Your task to perform on an android device: search for starred emails in the gmail app Image 0: 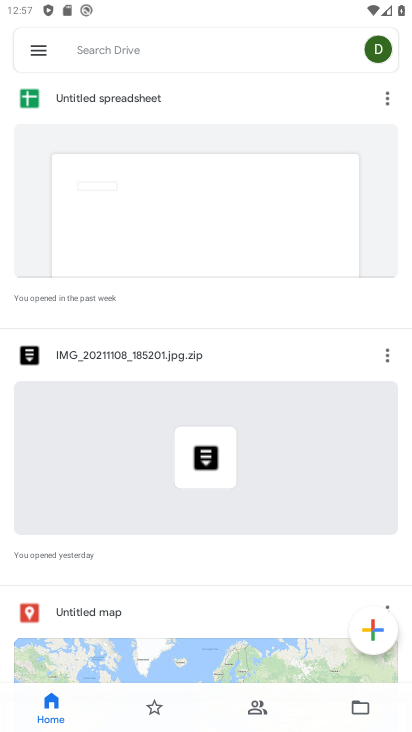
Step 0: press home button
Your task to perform on an android device: search for starred emails in the gmail app Image 1: 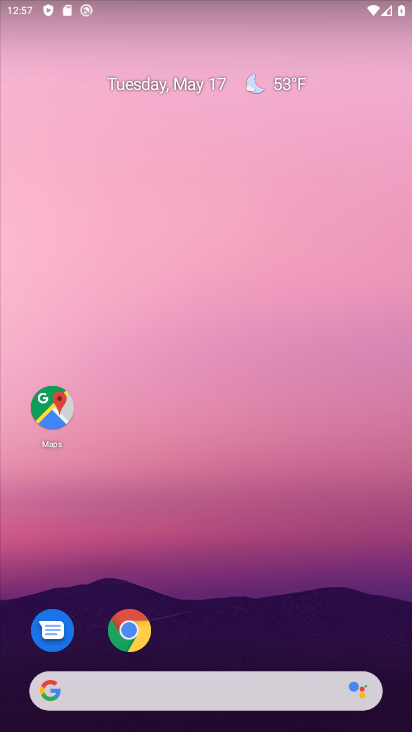
Step 1: drag from (250, 635) to (336, 82)
Your task to perform on an android device: search for starred emails in the gmail app Image 2: 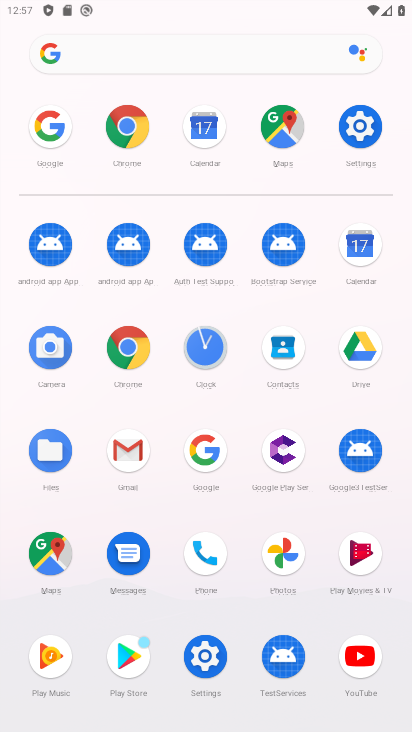
Step 2: click (130, 465)
Your task to perform on an android device: search for starred emails in the gmail app Image 3: 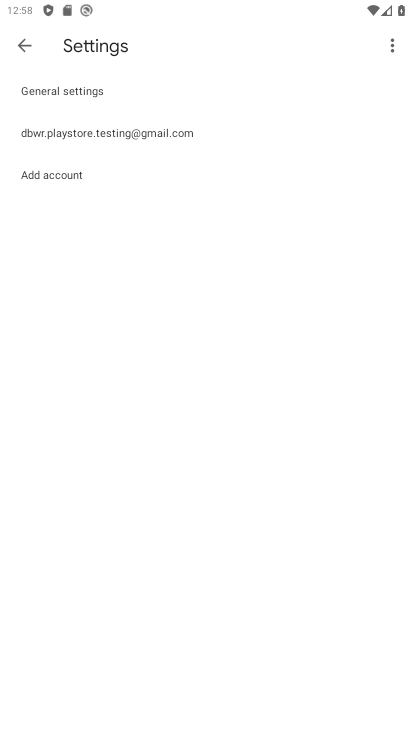
Step 3: click (29, 51)
Your task to perform on an android device: search for starred emails in the gmail app Image 4: 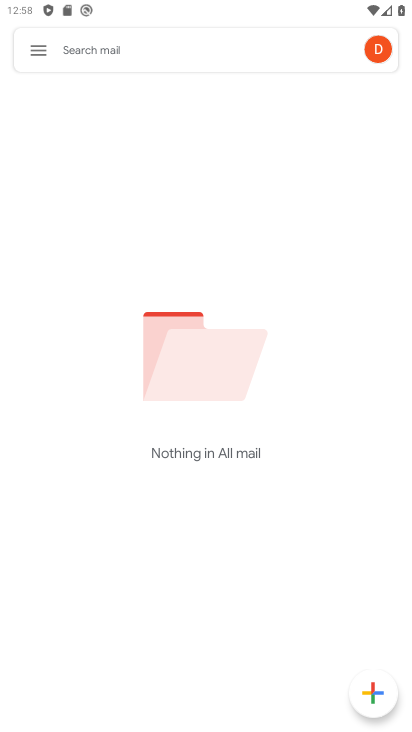
Step 4: click (27, 53)
Your task to perform on an android device: search for starred emails in the gmail app Image 5: 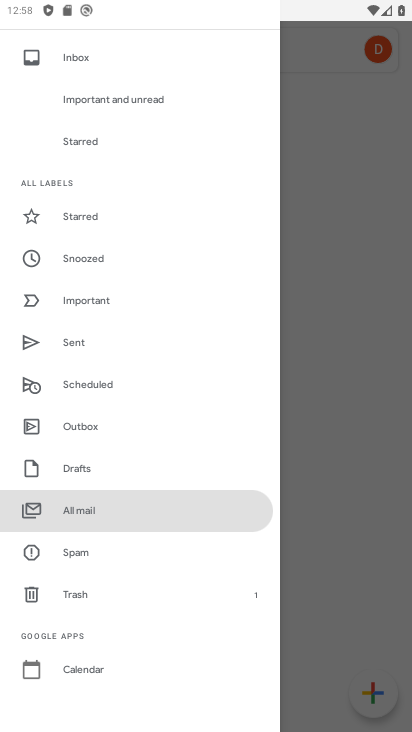
Step 5: click (92, 221)
Your task to perform on an android device: search for starred emails in the gmail app Image 6: 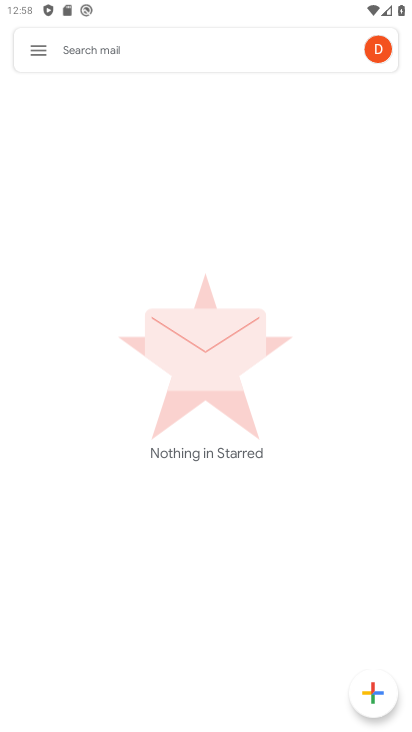
Step 6: click (40, 63)
Your task to perform on an android device: search for starred emails in the gmail app Image 7: 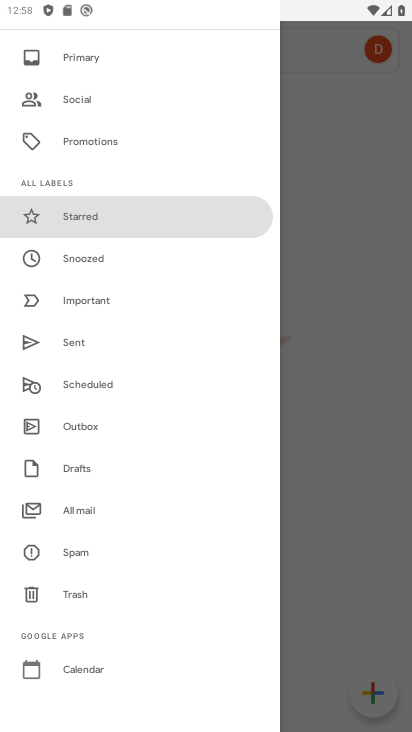
Step 7: task complete